Your task to perform on an android device: open sync settings in chrome Image 0: 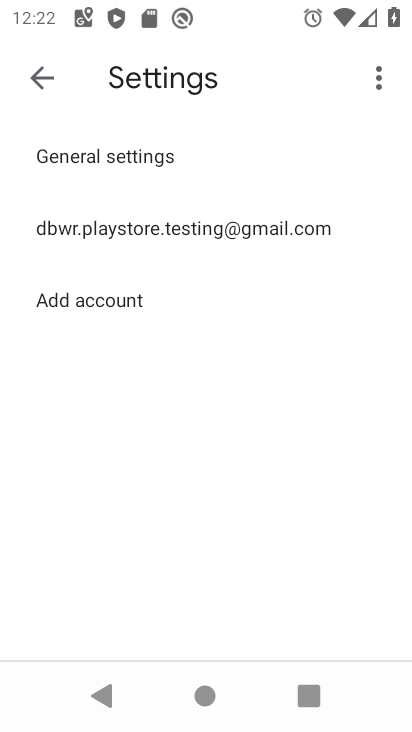
Step 0: click (139, 170)
Your task to perform on an android device: open sync settings in chrome Image 1: 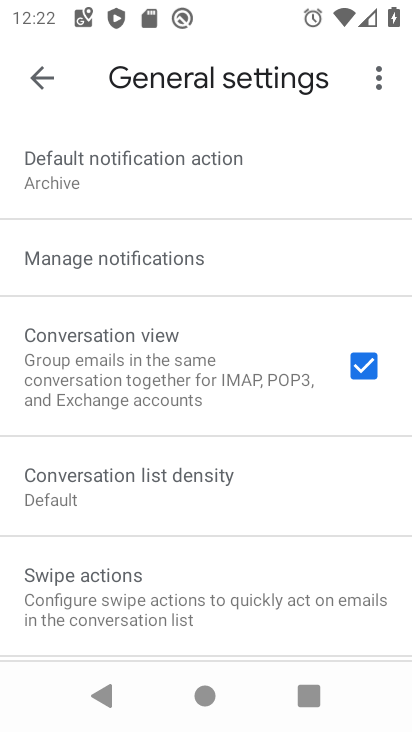
Step 1: task complete